Your task to perform on an android device: Go to Google maps Image 0: 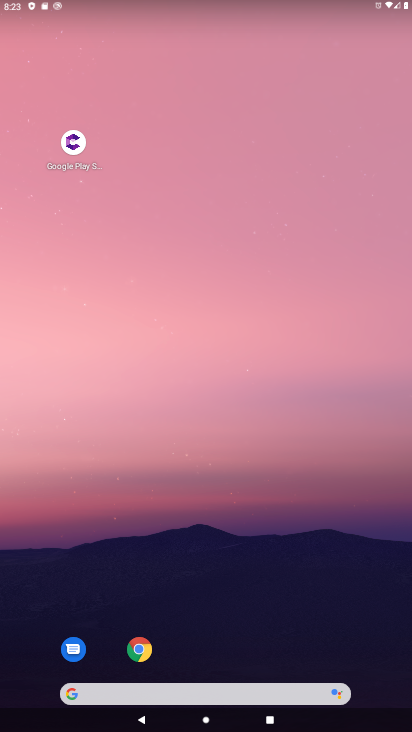
Step 0: drag from (367, 640) to (315, 116)
Your task to perform on an android device: Go to Google maps Image 1: 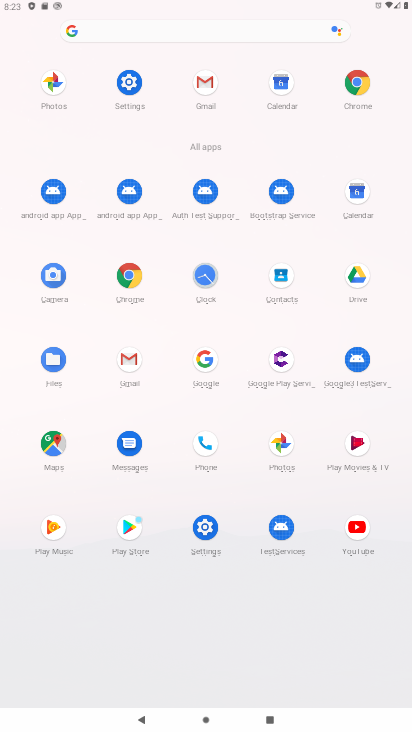
Step 1: click (50, 445)
Your task to perform on an android device: Go to Google maps Image 2: 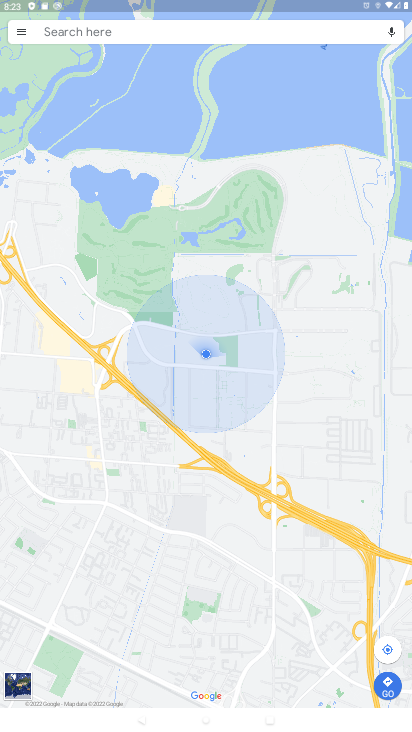
Step 2: task complete